Your task to perform on an android device: Is it going to rain today? Image 0: 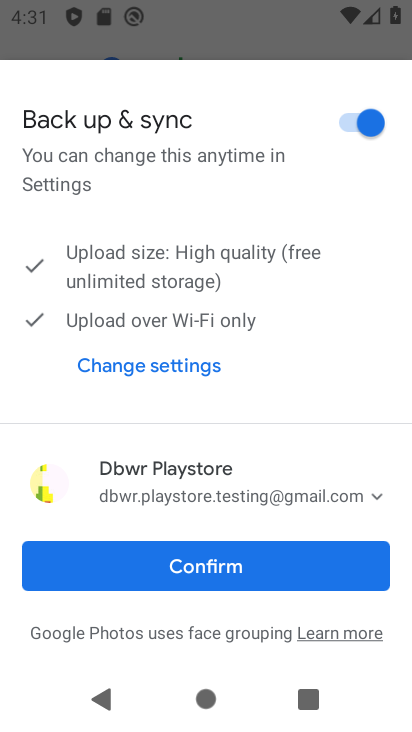
Step 0: press home button
Your task to perform on an android device: Is it going to rain today? Image 1: 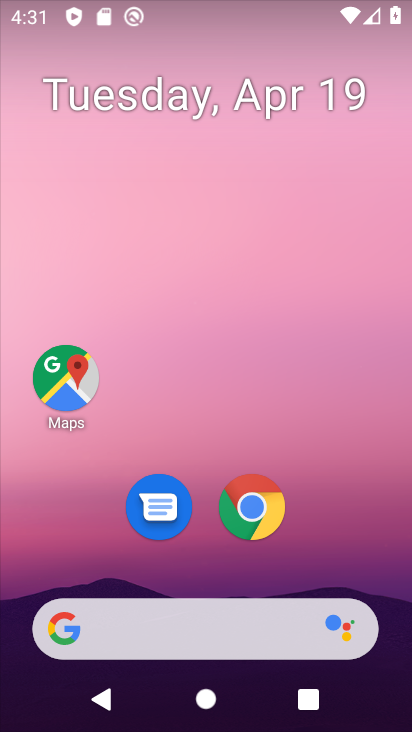
Step 1: drag from (318, 520) to (216, 129)
Your task to perform on an android device: Is it going to rain today? Image 2: 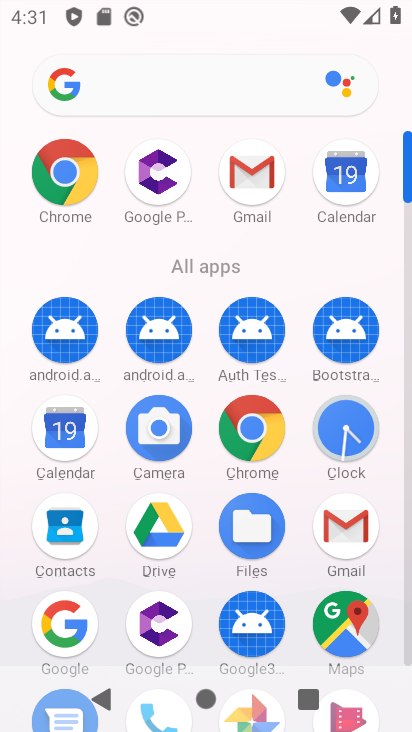
Step 2: click (246, 432)
Your task to perform on an android device: Is it going to rain today? Image 3: 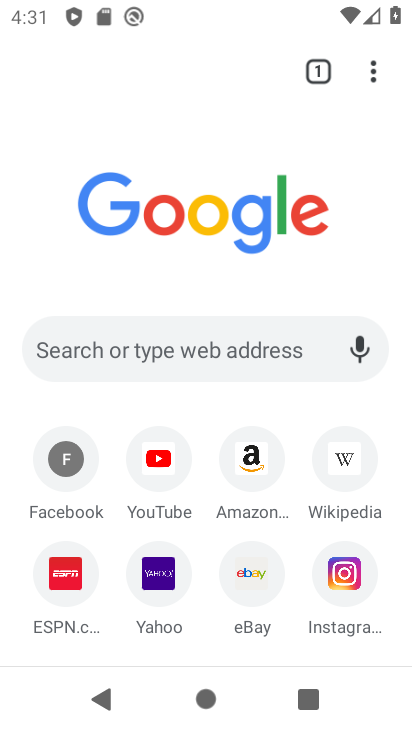
Step 3: click (247, 360)
Your task to perform on an android device: Is it going to rain today? Image 4: 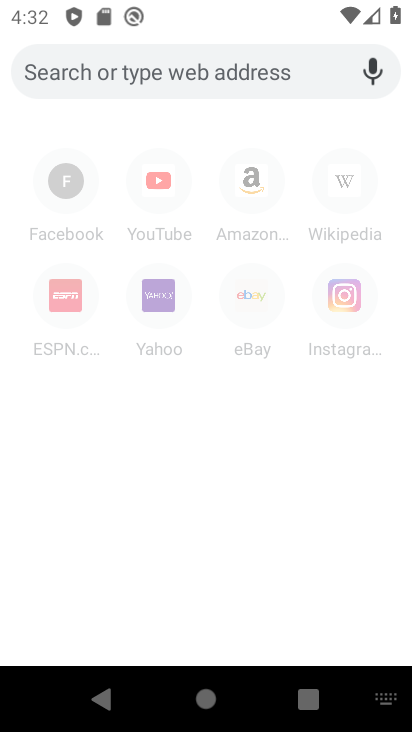
Step 4: type "weather"
Your task to perform on an android device: Is it going to rain today? Image 5: 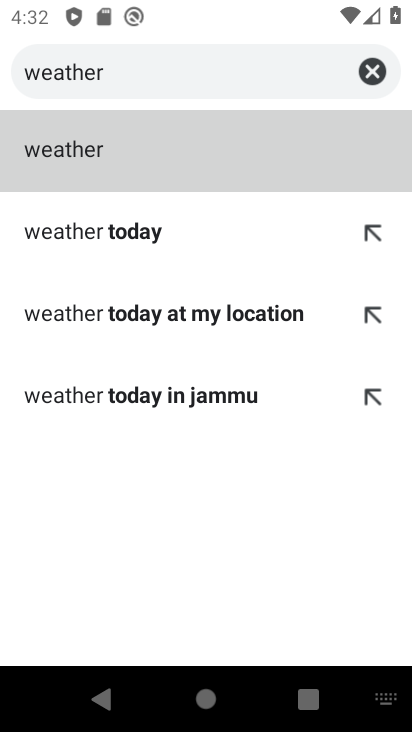
Step 5: click (153, 228)
Your task to perform on an android device: Is it going to rain today? Image 6: 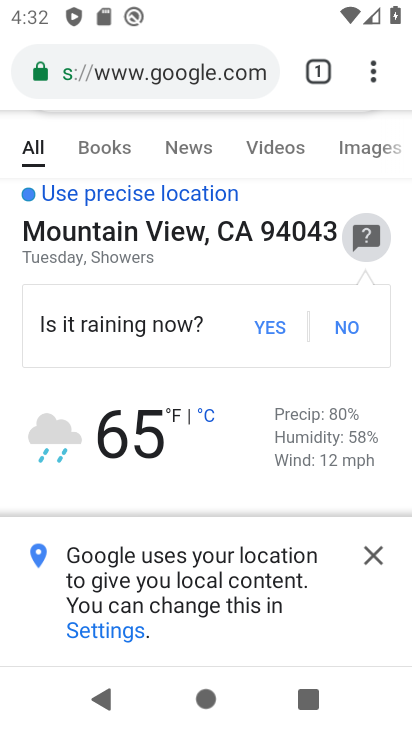
Step 6: task complete